Your task to perform on an android device: turn on javascript in the chrome app Image 0: 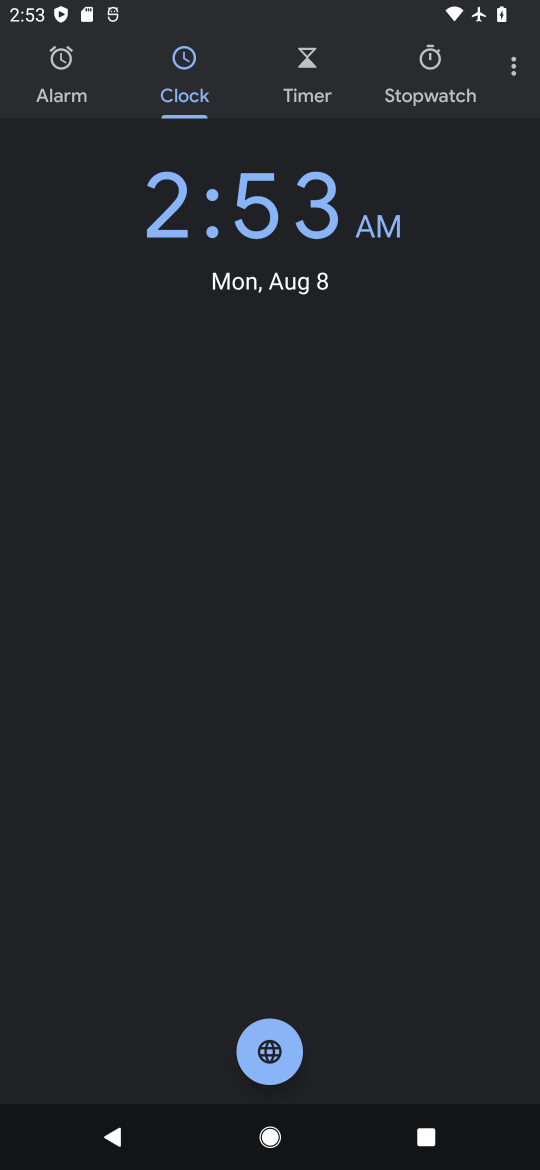
Step 0: press home button
Your task to perform on an android device: turn on javascript in the chrome app Image 1: 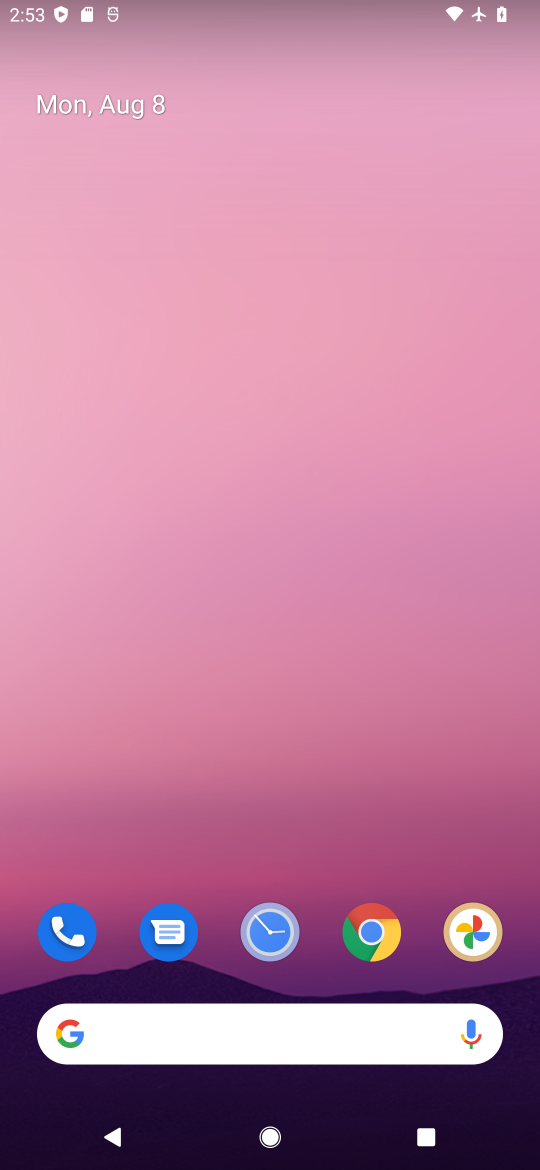
Step 1: drag from (314, 821) to (372, 35)
Your task to perform on an android device: turn on javascript in the chrome app Image 2: 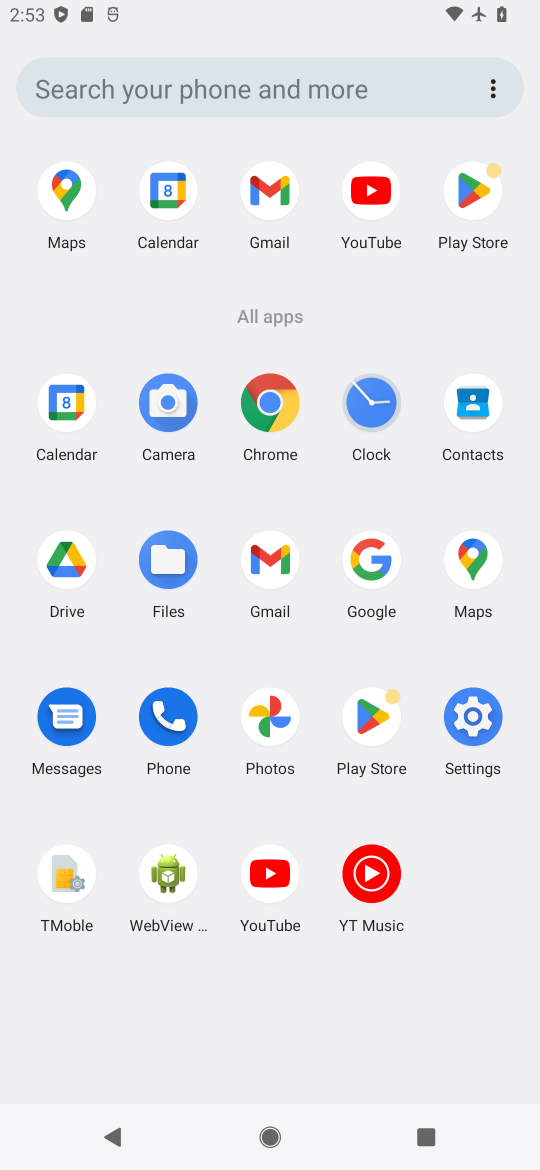
Step 2: click (261, 395)
Your task to perform on an android device: turn on javascript in the chrome app Image 3: 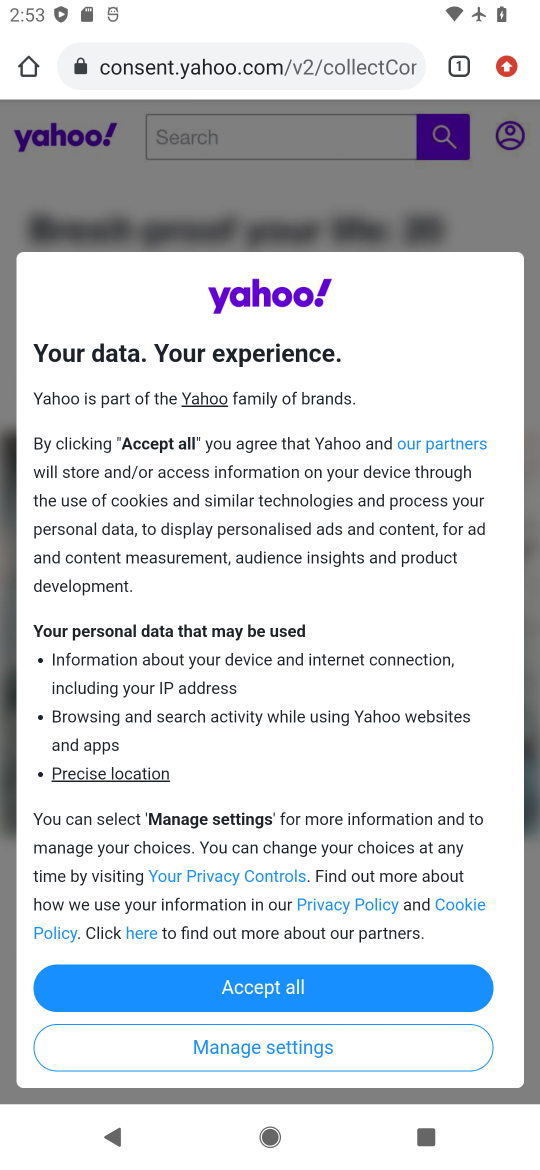
Step 3: drag from (537, 66) to (327, 881)
Your task to perform on an android device: turn on javascript in the chrome app Image 4: 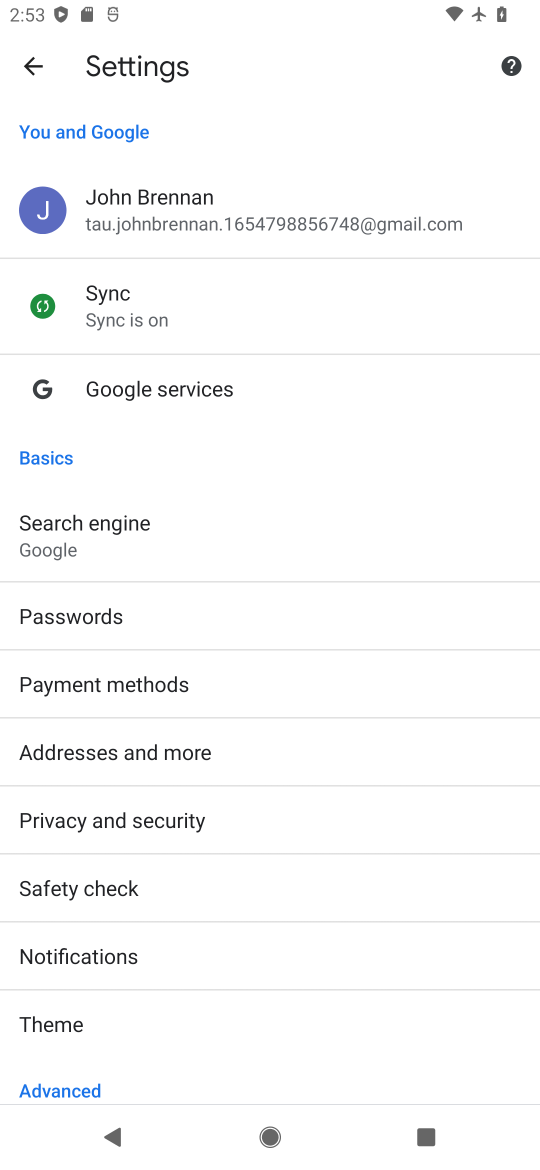
Step 4: drag from (388, 961) to (423, 545)
Your task to perform on an android device: turn on javascript in the chrome app Image 5: 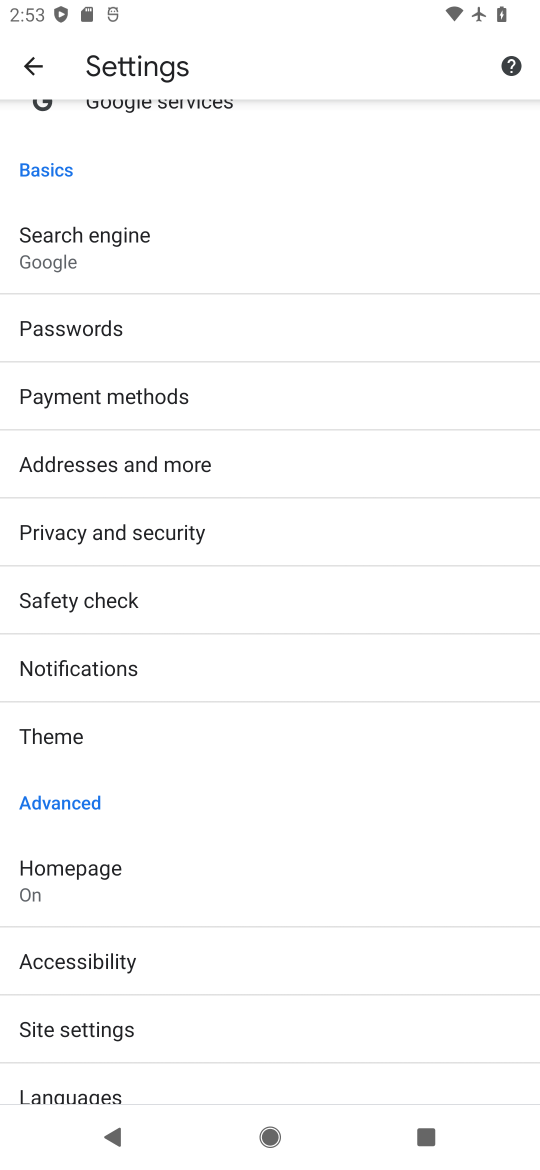
Step 5: click (123, 1021)
Your task to perform on an android device: turn on javascript in the chrome app Image 6: 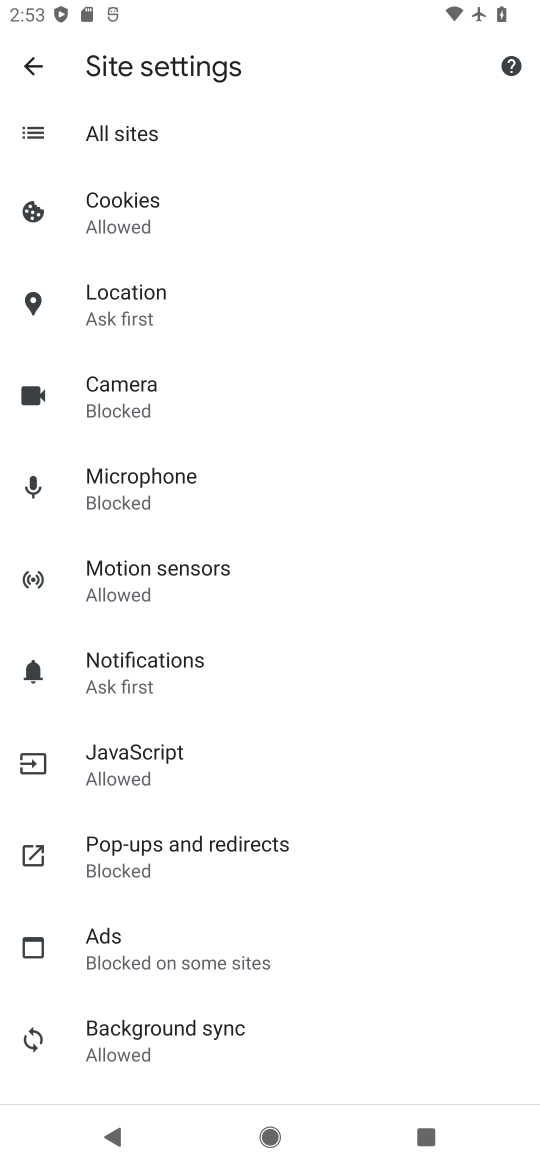
Step 6: click (177, 761)
Your task to perform on an android device: turn on javascript in the chrome app Image 7: 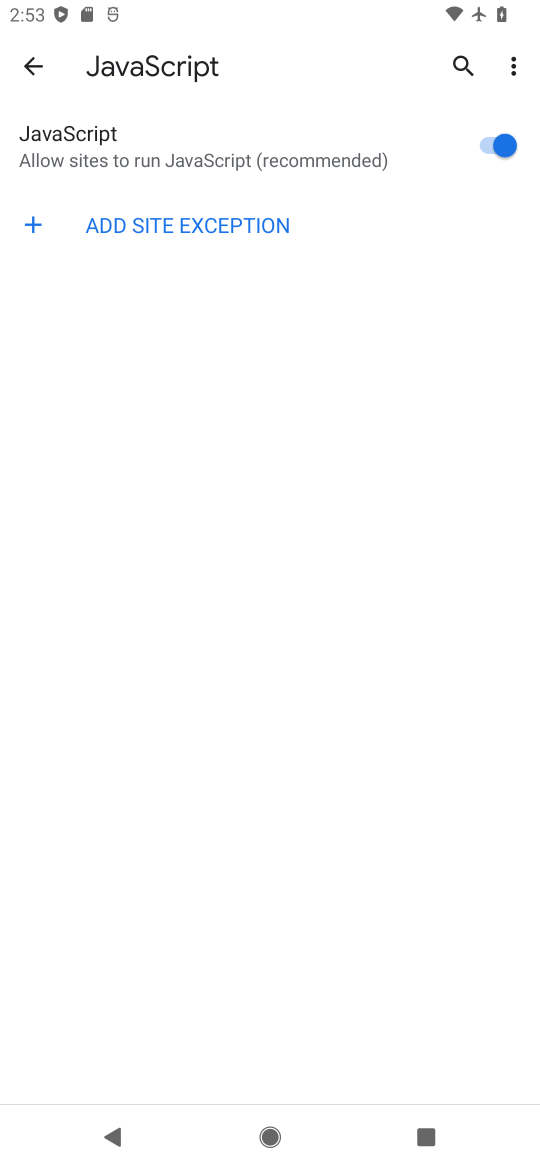
Step 7: task complete